Your task to perform on an android device: snooze an email in the gmail app Image 0: 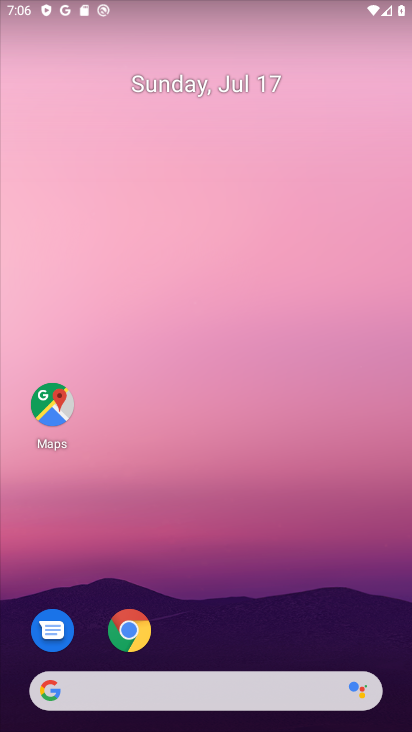
Step 0: click (120, 623)
Your task to perform on an android device: snooze an email in the gmail app Image 1: 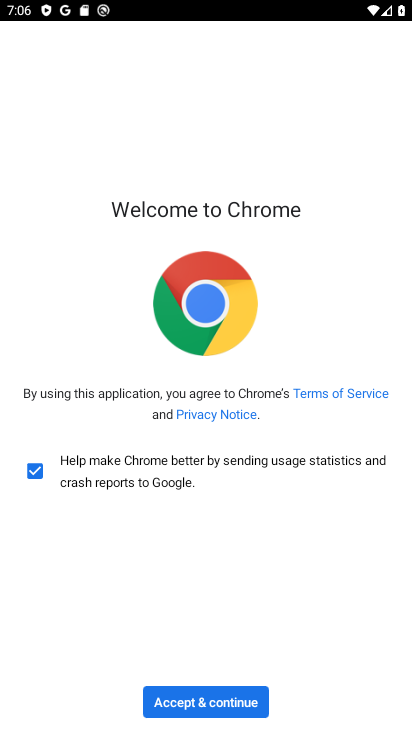
Step 1: press back button
Your task to perform on an android device: snooze an email in the gmail app Image 2: 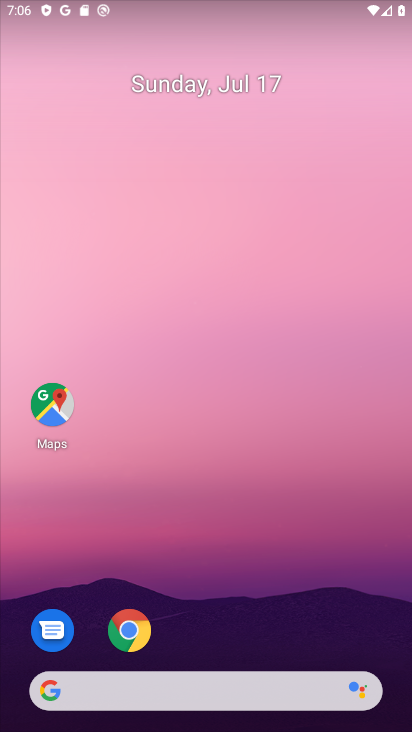
Step 2: drag from (178, 638) to (236, 49)
Your task to perform on an android device: snooze an email in the gmail app Image 3: 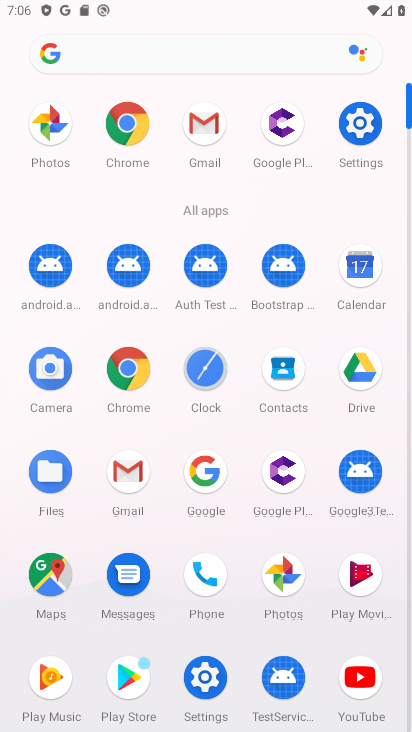
Step 3: click (201, 118)
Your task to perform on an android device: snooze an email in the gmail app Image 4: 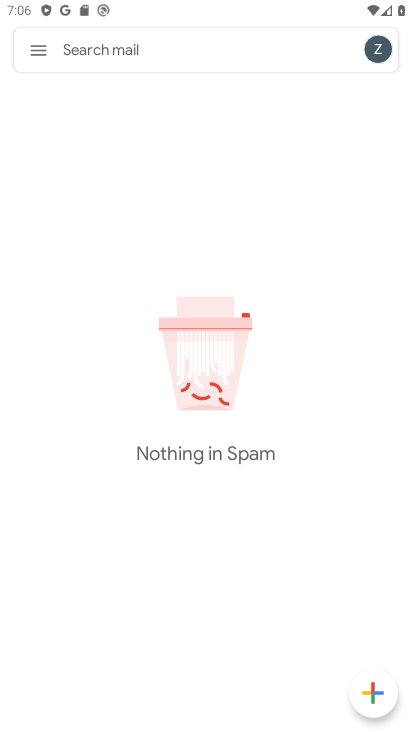
Step 4: click (39, 45)
Your task to perform on an android device: snooze an email in the gmail app Image 5: 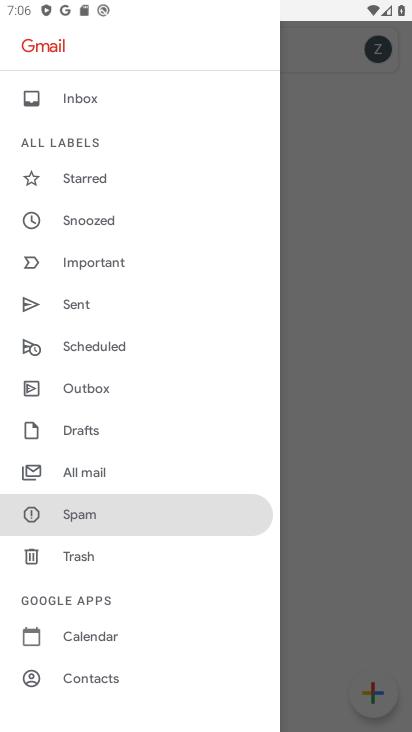
Step 5: click (89, 478)
Your task to perform on an android device: snooze an email in the gmail app Image 6: 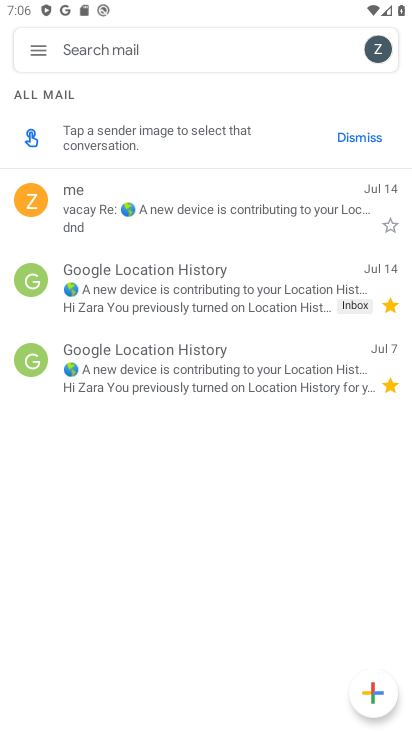
Step 6: click (280, 205)
Your task to perform on an android device: snooze an email in the gmail app Image 7: 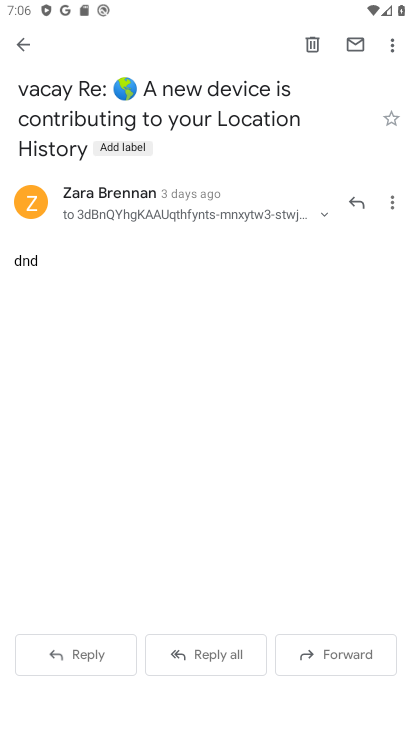
Step 7: click (393, 48)
Your task to perform on an android device: snooze an email in the gmail app Image 8: 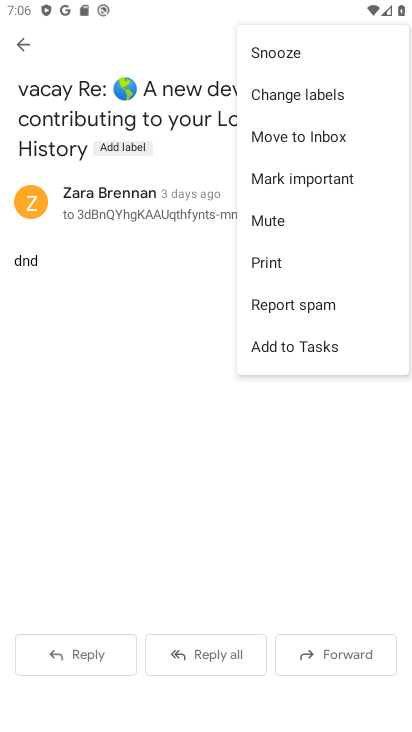
Step 8: click (337, 44)
Your task to perform on an android device: snooze an email in the gmail app Image 9: 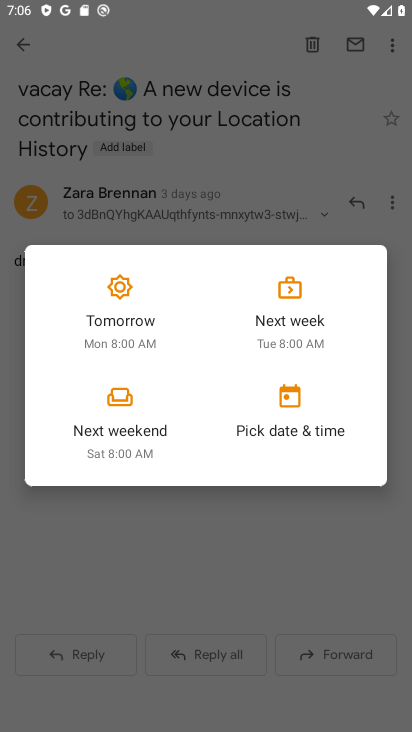
Step 9: click (109, 335)
Your task to perform on an android device: snooze an email in the gmail app Image 10: 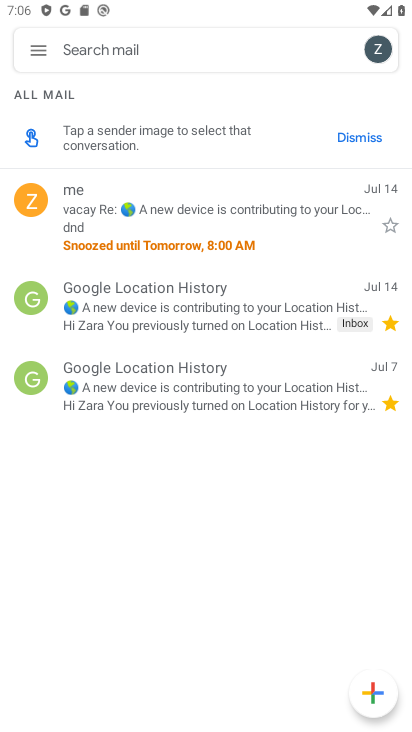
Step 10: task complete